Your task to perform on an android device: Do I have any events tomorrow? Image 0: 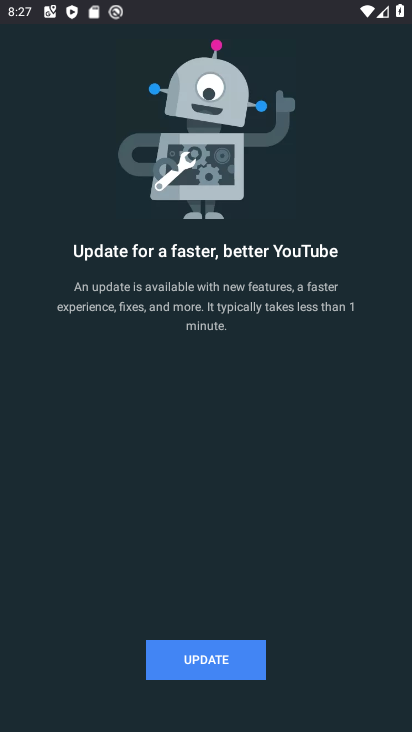
Step 0: press home button
Your task to perform on an android device: Do I have any events tomorrow? Image 1: 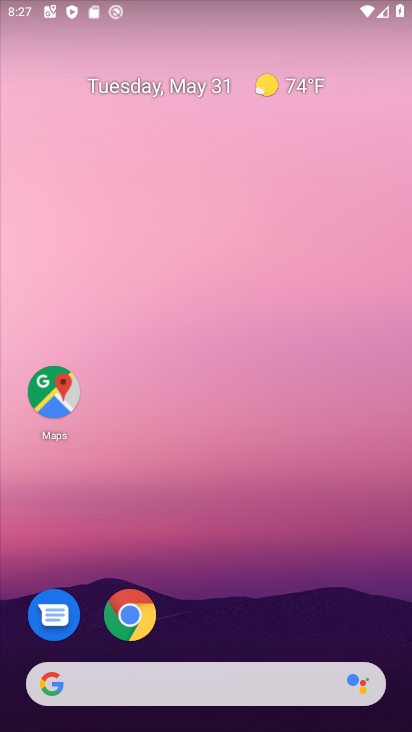
Step 1: drag from (188, 629) to (205, 295)
Your task to perform on an android device: Do I have any events tomorrow? Image 2: 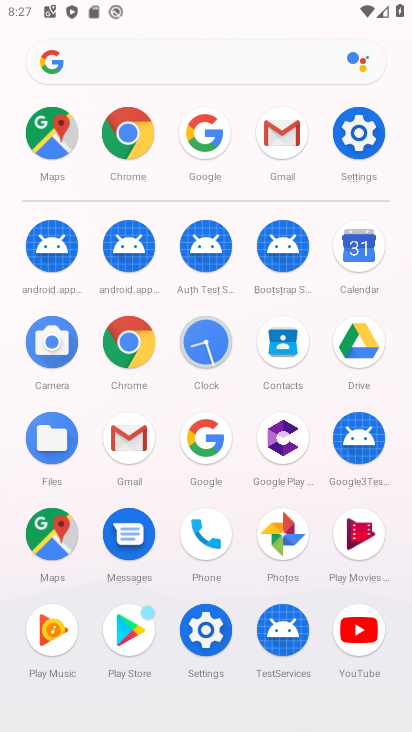
Step 2: click (358, 268)
Your task to perform on an android device: Do I have any events tomorrow? Image 3: 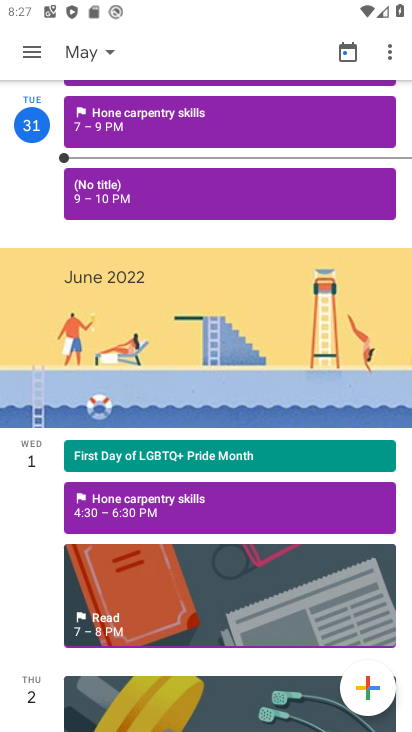
Step 3: click (104, 51)
Your task to perform on an android device: Do I have any events tomorrow? Image 4: 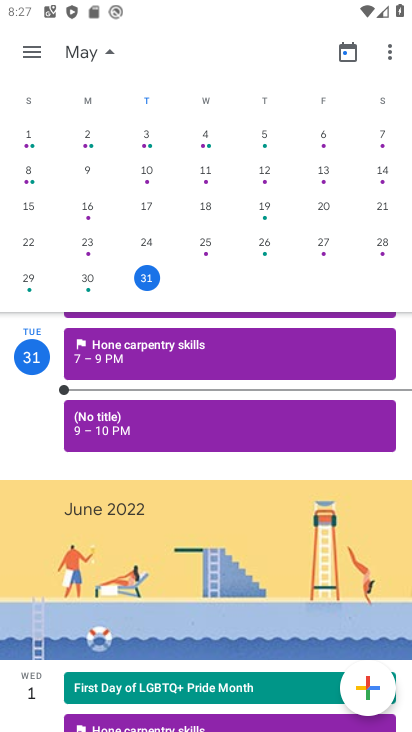
Step 4: drag from (344, 205) to (14, 211)
Your task to perform on an android device: Do I have any events tomorrow? Image 5: 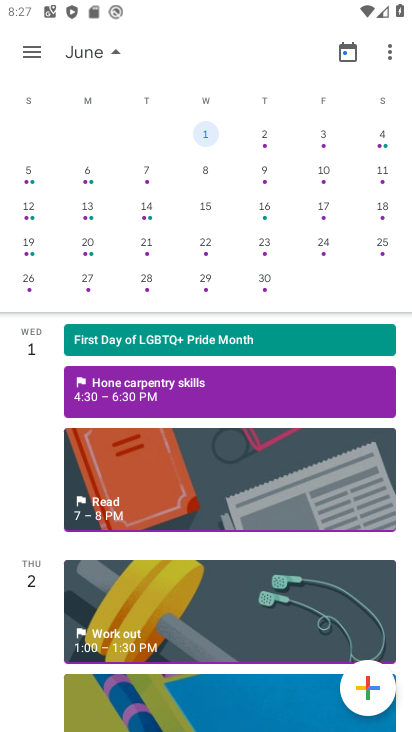
Step 5: click (208, 134)
Your task to perform on an android device: Do I have any events tomorrow? Image 6: 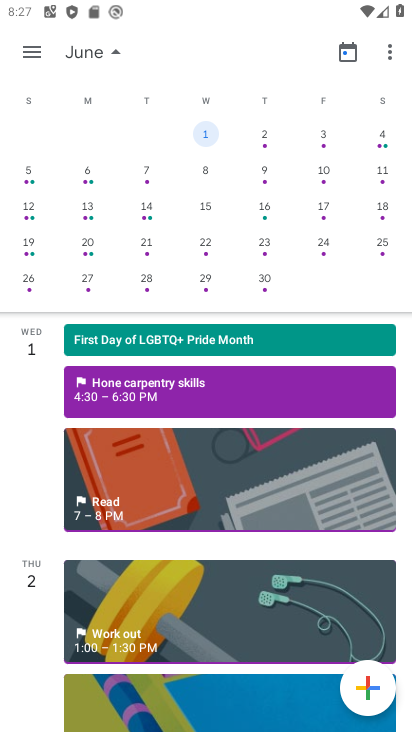
Step 6: click (203, 123)
Your task to perform on an android device: Do I have any events tomorrow? Image 7: 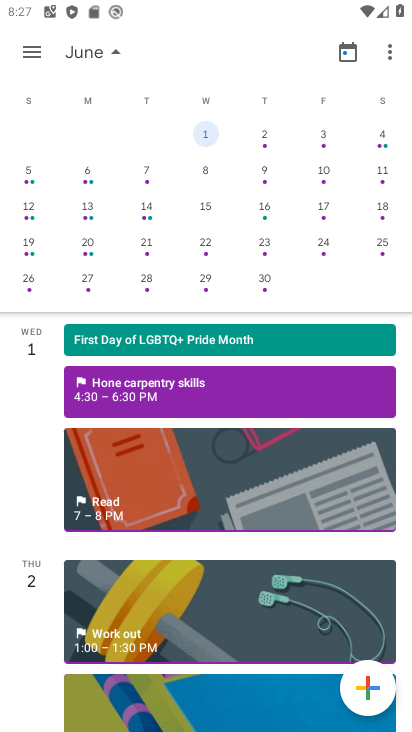
Step 7: task complete